Your task to perform on an android device: Search for razer huntsman on walmart, select the first entry, and add it to the cart. Image 0: 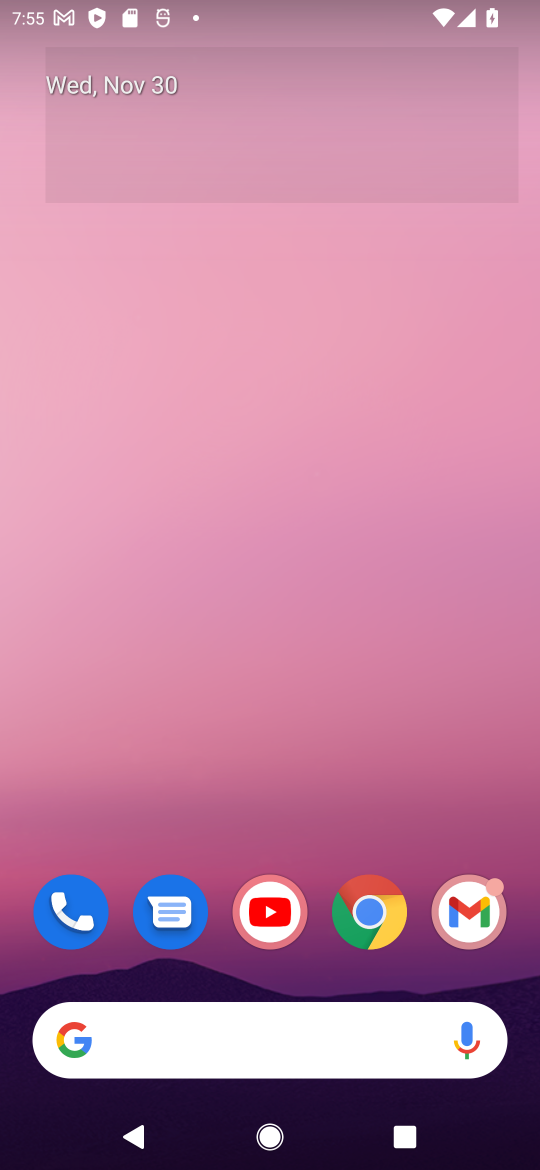
Step 0: press home button
Your task to perform on an android device: Search for razer huntsman on walmart, select the first entry, and add it to the cart. Image 1: 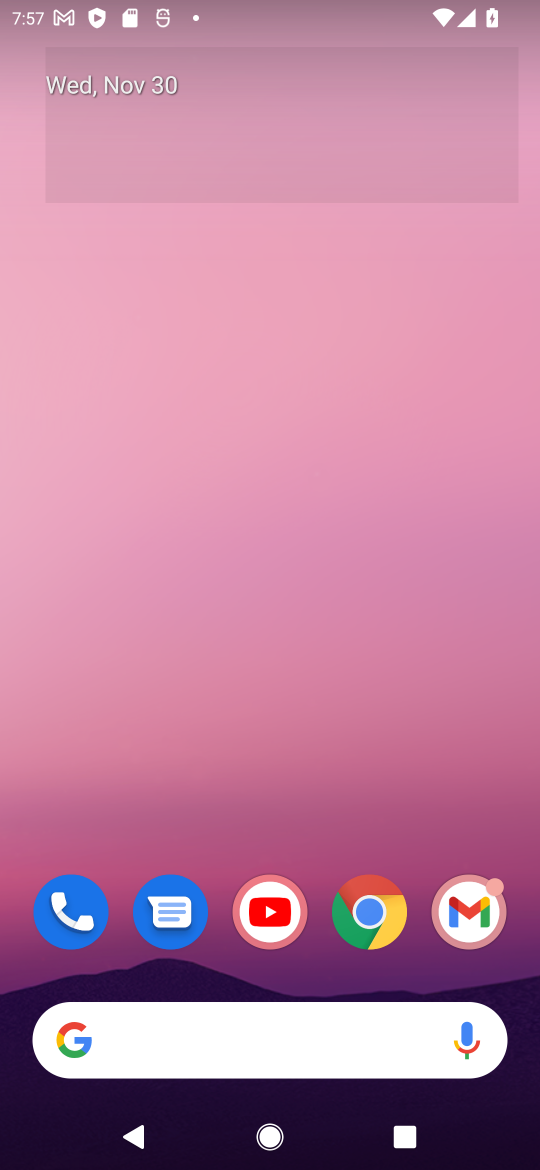
Step 1: click (288, 1023)
Your task to perform on an android device: Search for razer huntsman on walmart, select the first entry, and add it to the cart. Image 2: 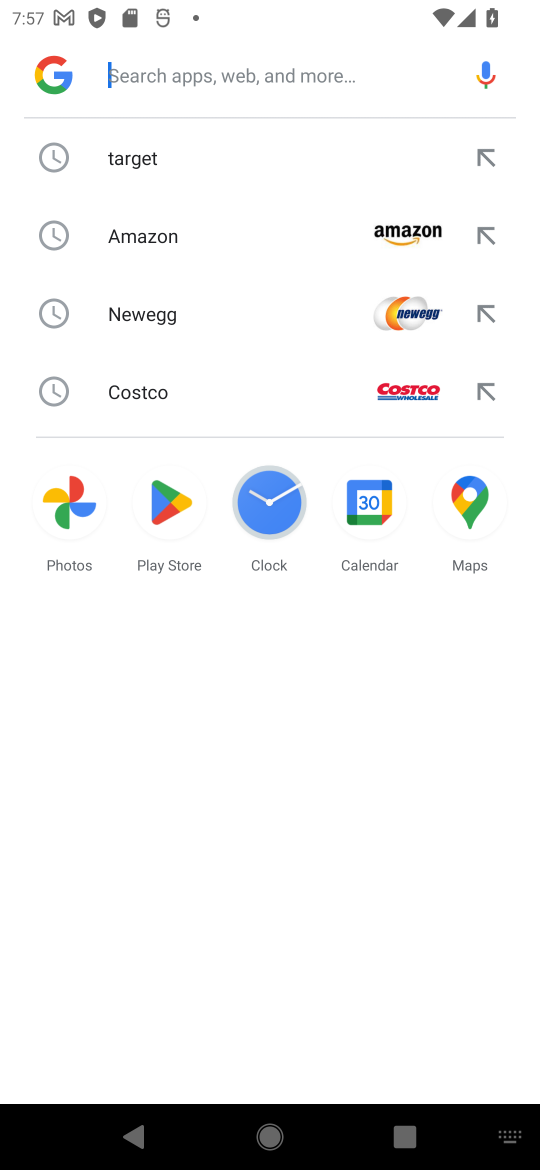
Step 2: click (254, 1038)
Your task to perform on an android device: Search for razer huntsman on walmart, select the first entry, and add it to the cart. Image 3: 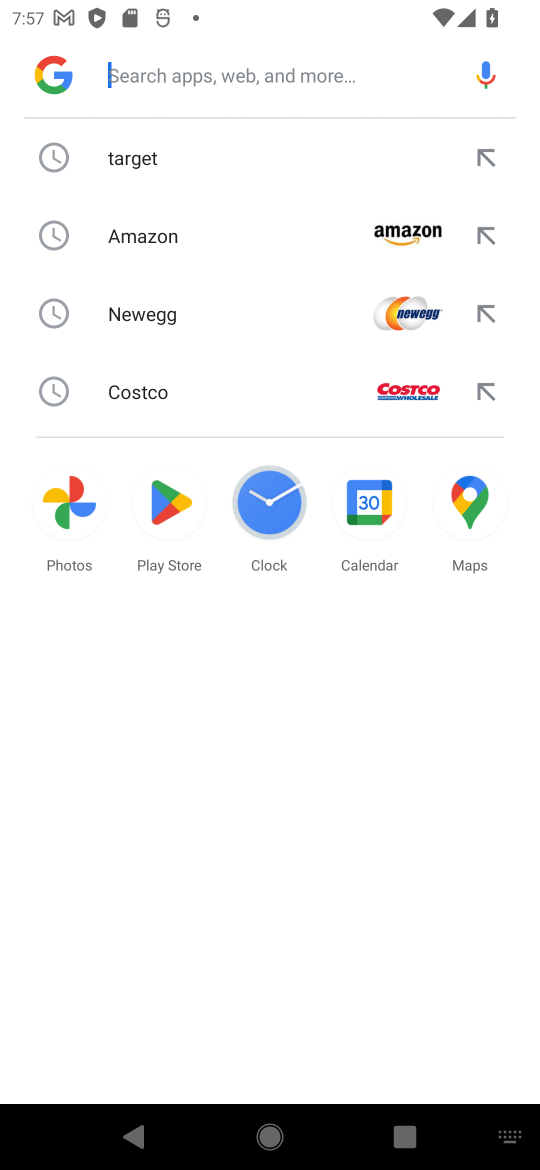
Step 3: type "walmart"
Your task to perform on an android device: Search for razer huntsman on walmart, select the first entry, and add it to the cart. Image 4: 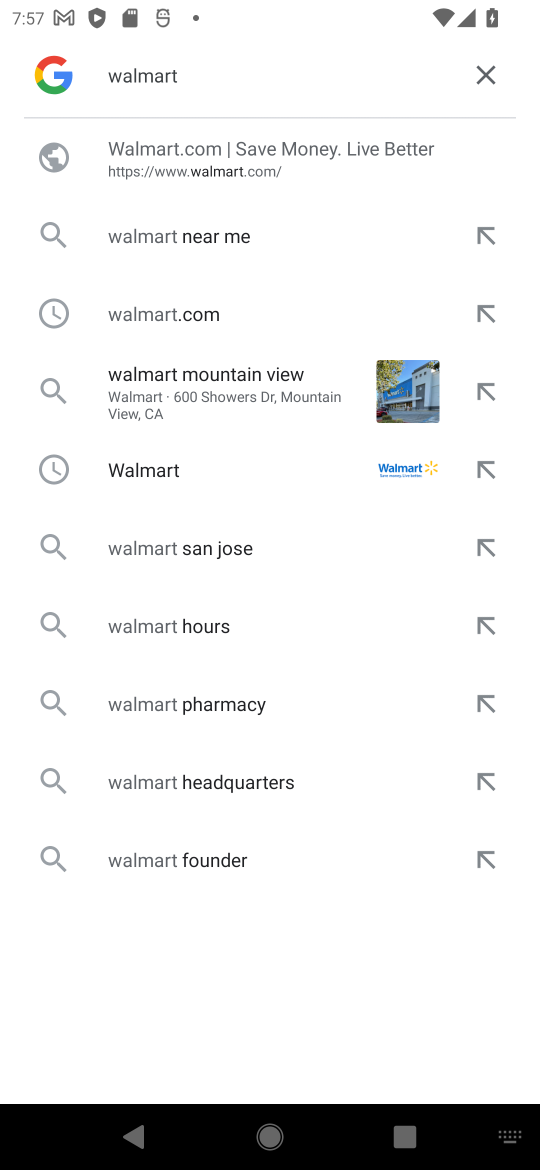
Step 4: click (158, 468)
Your task to perform on an android device: Search for razer huntsman on walmart, select the first entry, and add it to the cart. Image 5: 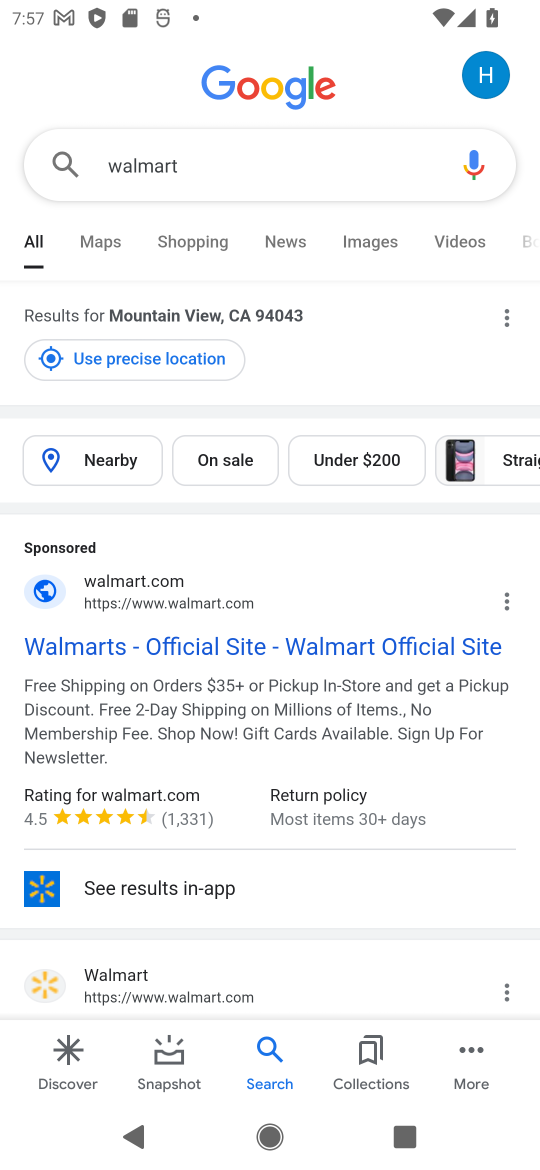
Step 5: click (159, 993)
Your task to perform on an android device: Search for razer huntsman on walmart, select the first entry, and add it to the cart. Image 6: 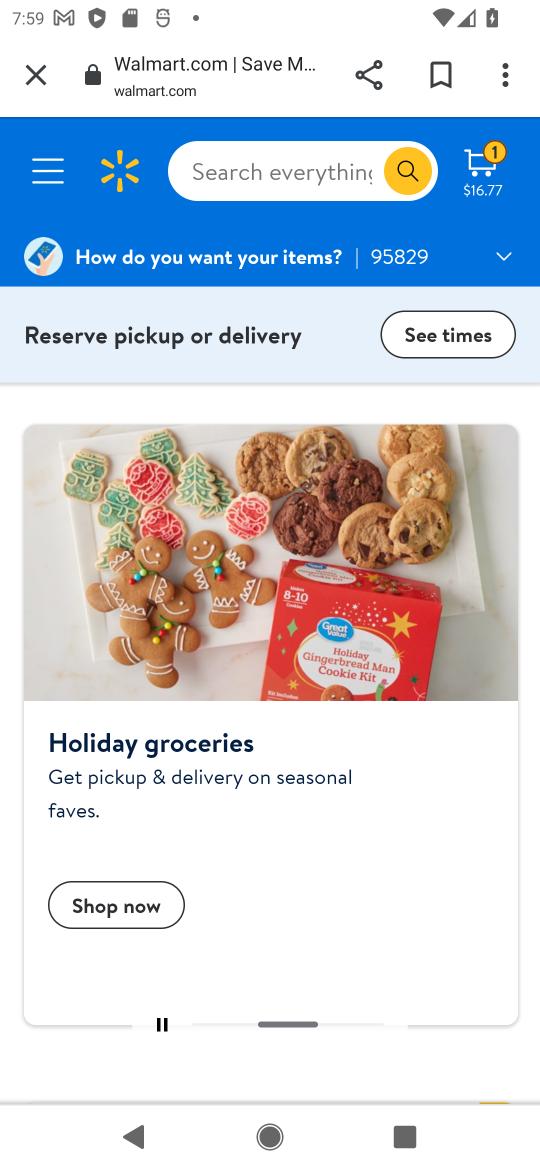
Step 6: click (269, 162)
Your task to perform on an android device: Search for razer huntsman on walmart, select the first entry, and add it to the cart. Image 7: 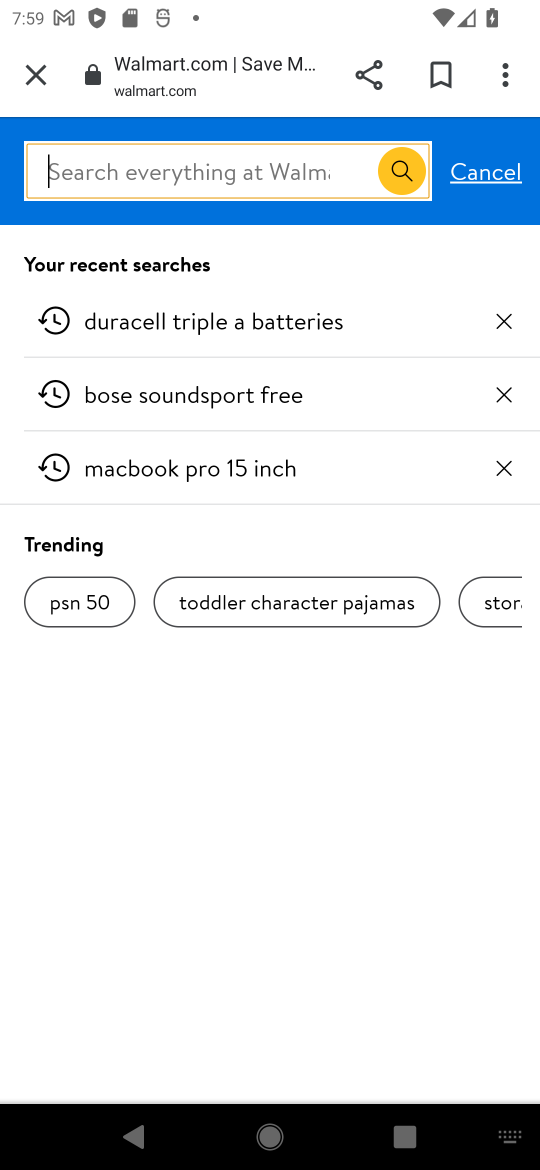
Step 7: click (269, 162)
Your task to perform on an android device: Search for razer huntsman on walmart, select the first entry, and add it to the cart. Image 8: 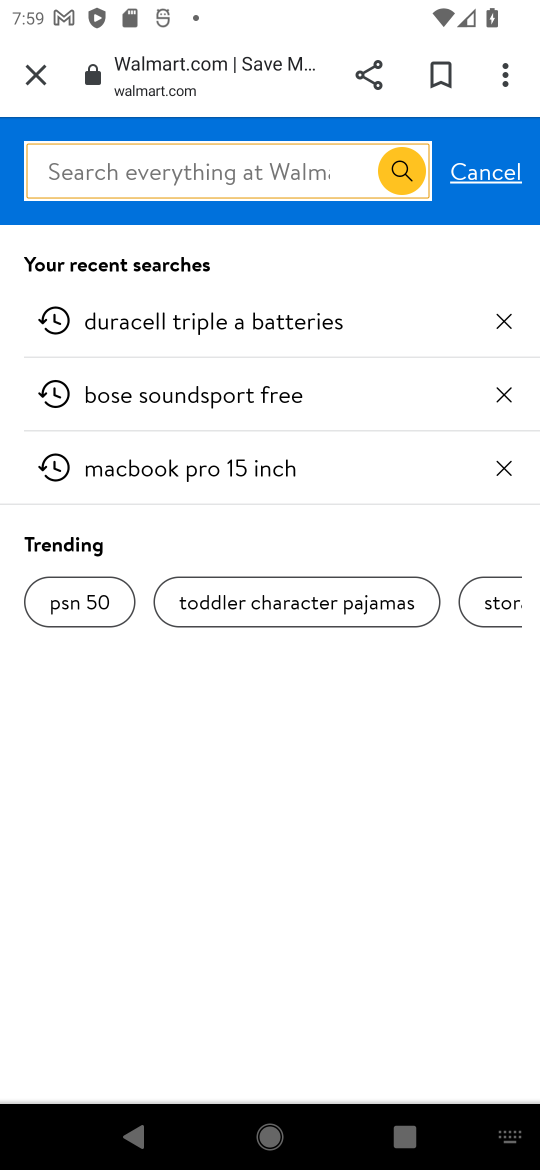
Step 8: type "razer huntsman"
Your task to perform on an android device: Search for razer huntsman on walmart, select the first entry, and add it to the cart. Image 9: 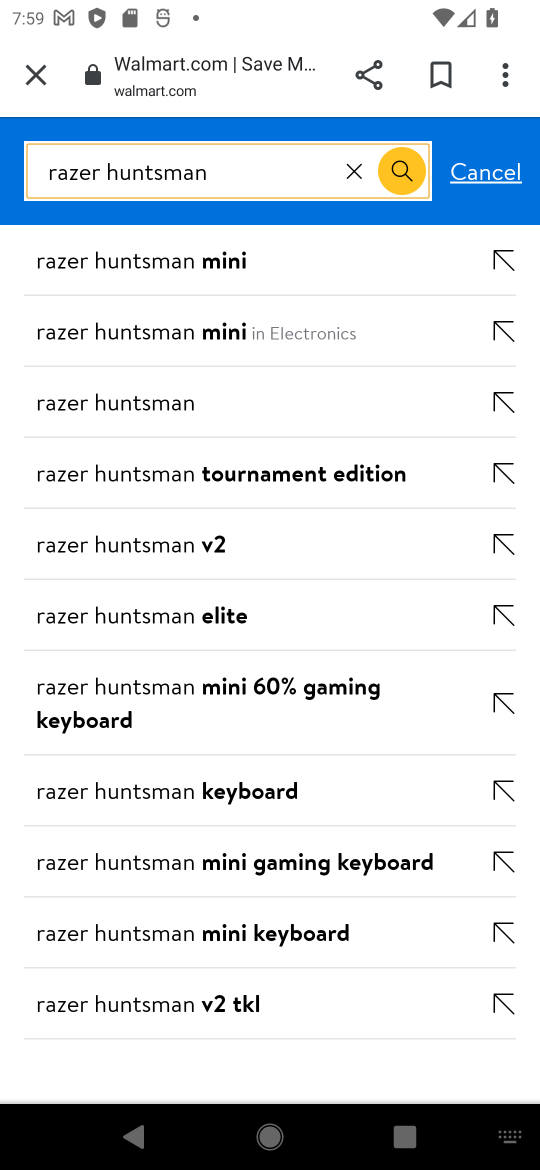
Step 9: click (164, 409)
Your task to perform on an android device: Search for razer huntsman on walmart, select the first entry, and add it to the cart. Image 10: 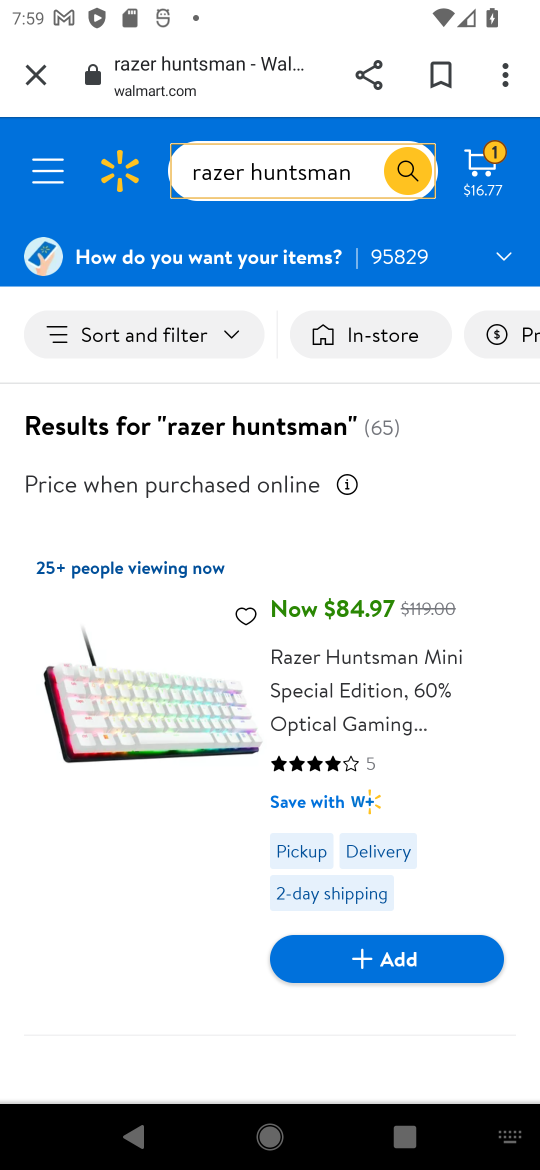
Step 10: click (164, 409)
Your task to perform on an android device: Search for razer huntsman on walmart, select the first entry, and add it to the cart. Image 11: 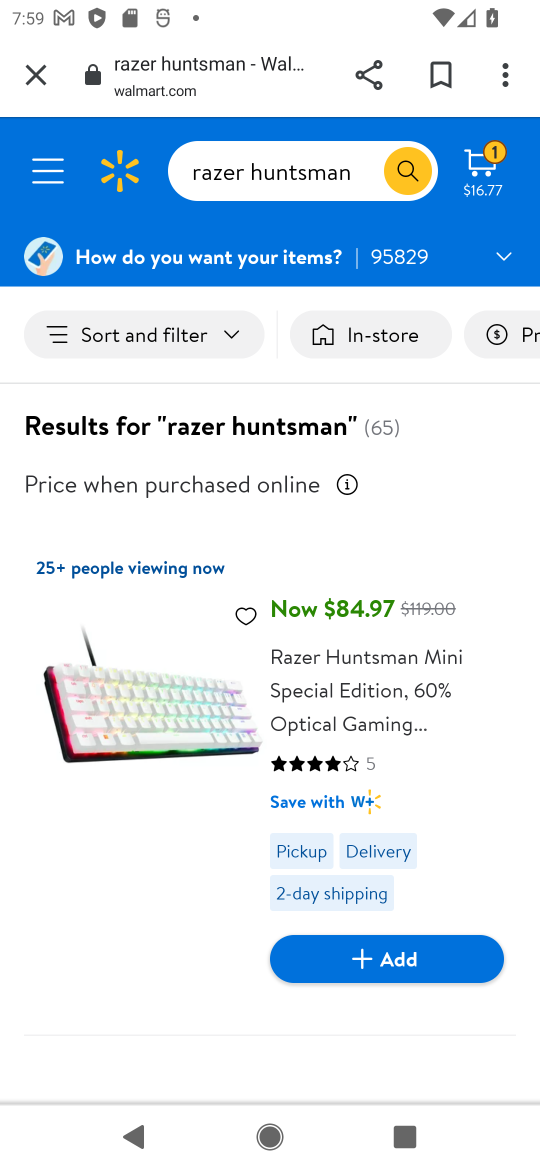
Step 11: click (376, 962)
Your task to perform on an android device: Search for razer huntsman on walmart, select the first entry, and add it to the cart. Image 12: 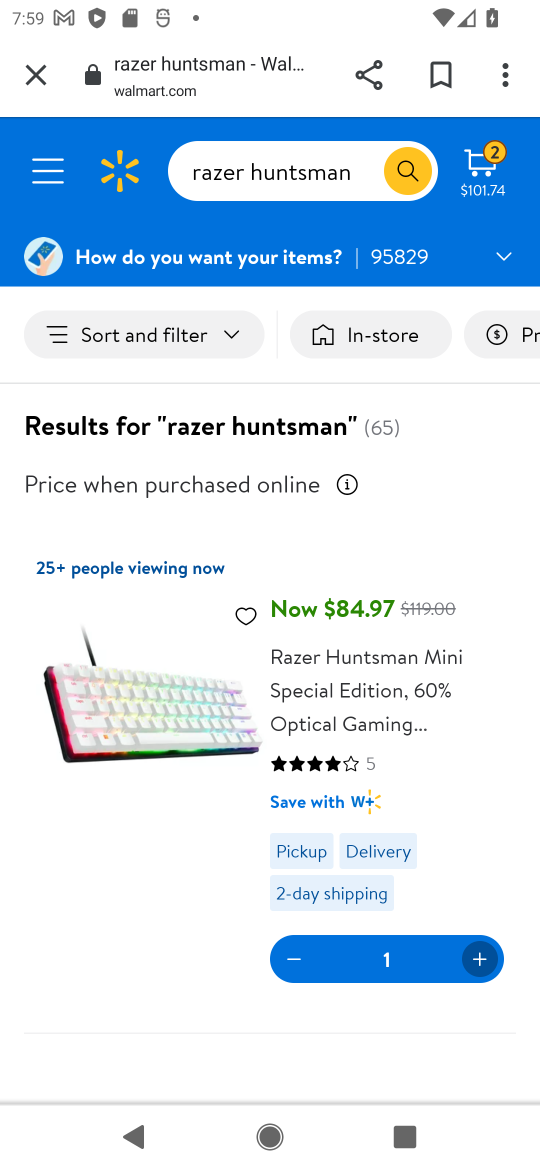
Step 12: task complete